Your task to perform on an android device: Check the settings for the Uber app Image 0: 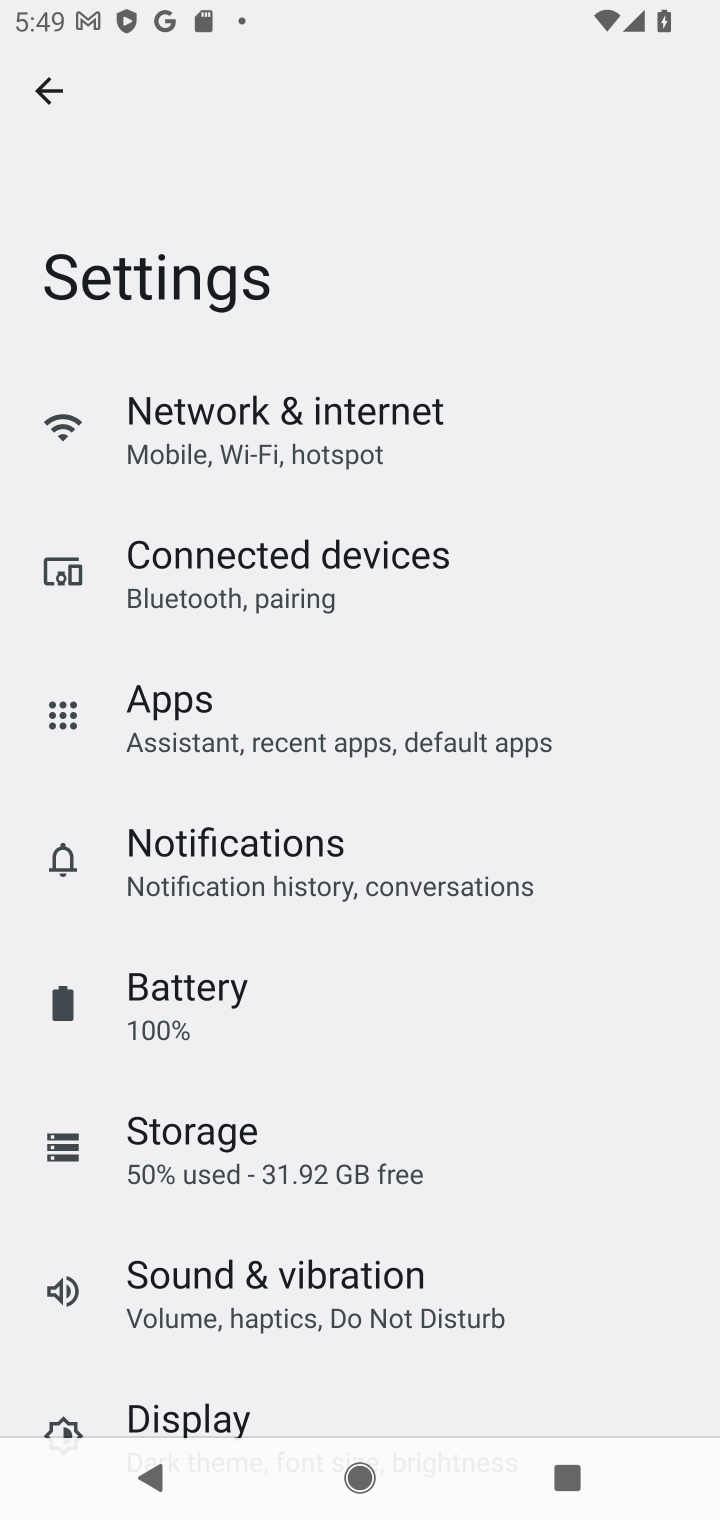
Step 0: press home button
Your task to perform on an android device: Check the settings for the Uber app Image 1: 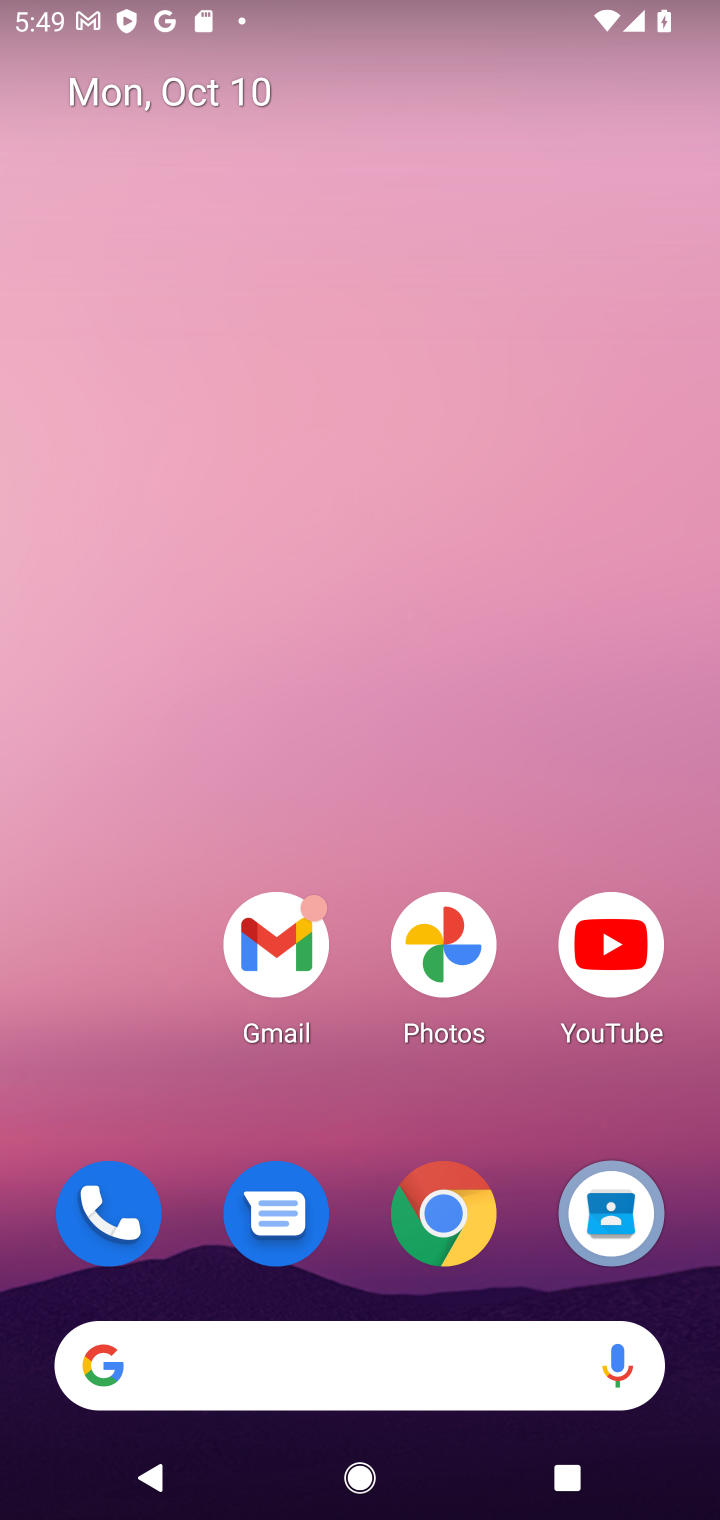
Step 1: task complete